Your task to perform on an android device: Search for seafood restaurants on Google Maps Image 0: 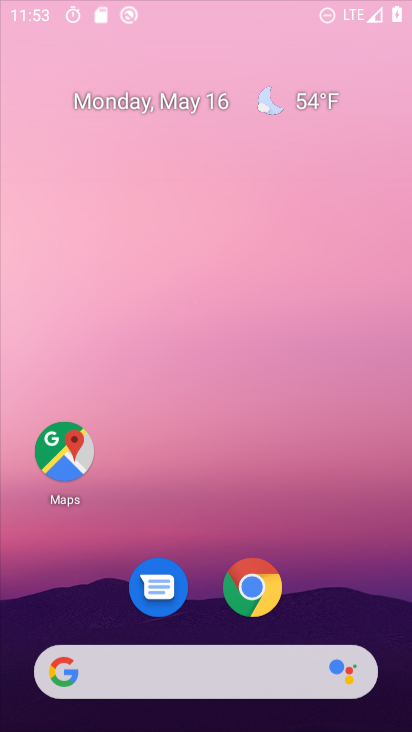
Step 0: click (306, 0)
Your task to perform on an android device: Search for seafood restaurants on Google Maps Image 1: 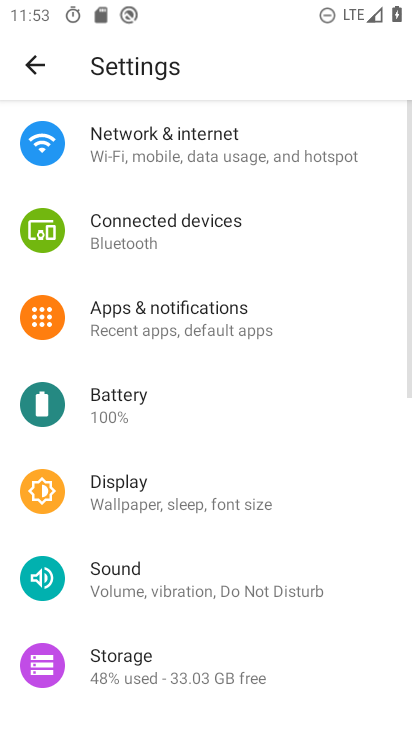
Step 1: press home button
Your task to perform on an android device: Search for seafood restaurants on Google Maps Image 2: 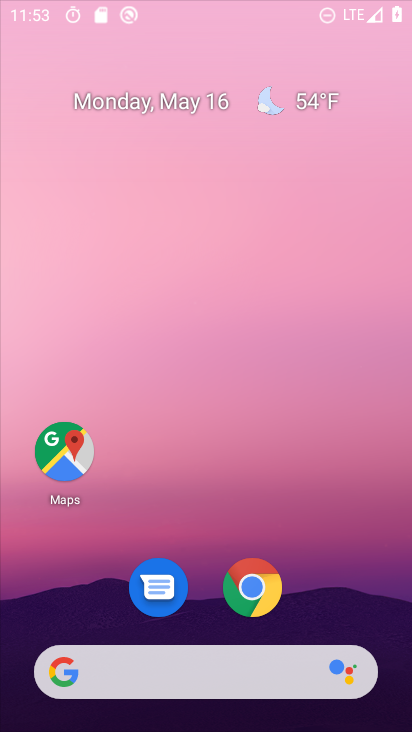
Step 2: drag from (205, 637) to (287, 183)
Your task to perform on an android device: Search for seafood restaurants on Google Maps Image 3: 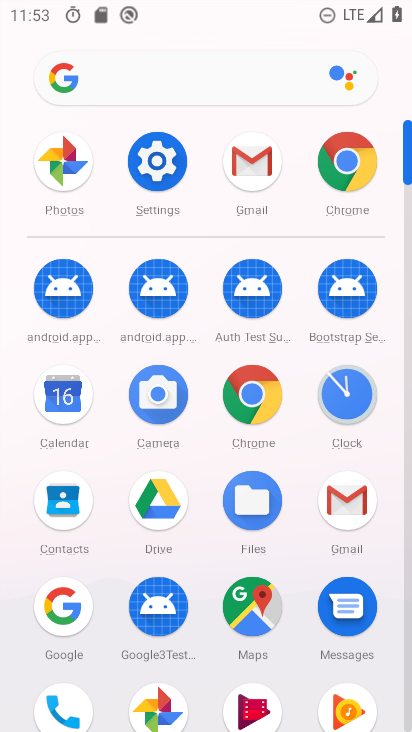
Step 3: click (242, 601)
Your task to perform on an android device: Search for seafood restaurants on Google Maps Image 4: 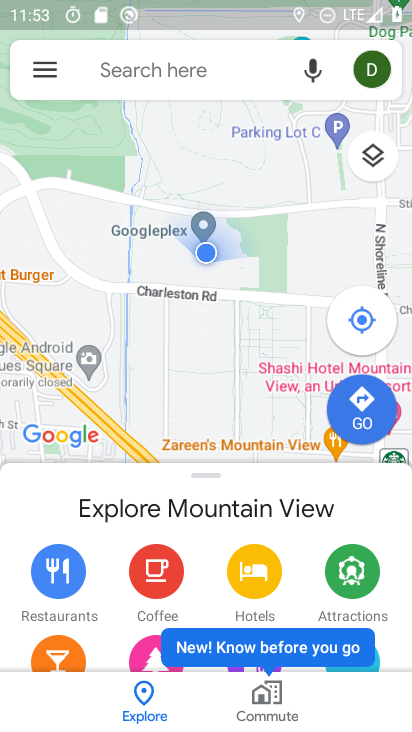
Step 4: drag from (219, 522) to (282, 112)
Your task to perform on an android device: Search for seafood restaurants on Google Maps Image 5: 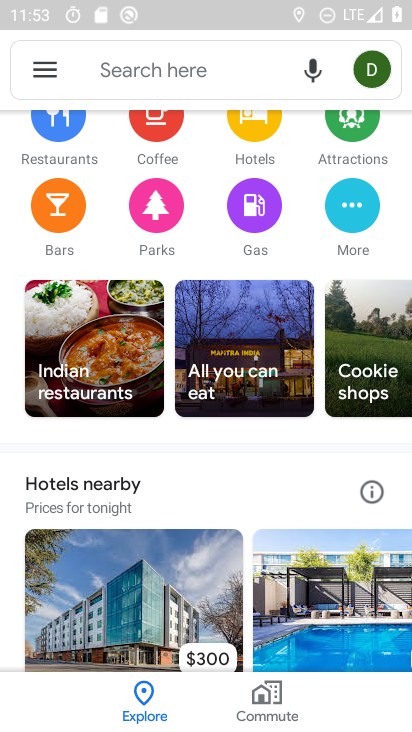
Step 5: click (150, 64)
Your task to perform on an android device: Search for seafood restaurants on Google Maps Image 6: 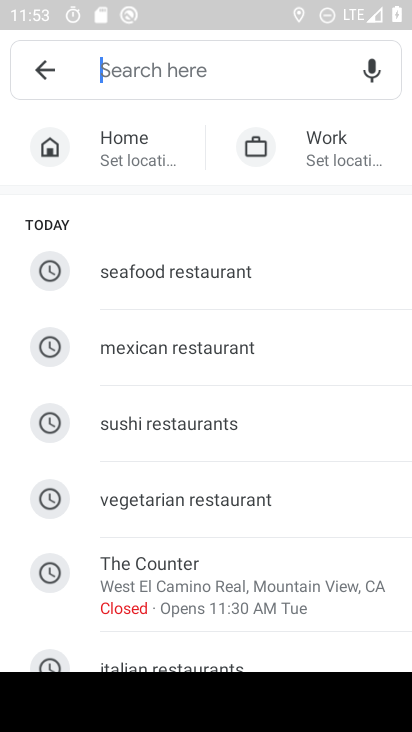
Step 6: click (187, 288)
Your task to perform on an android device: Search for seafood restaurants on Google Maps Image 7: 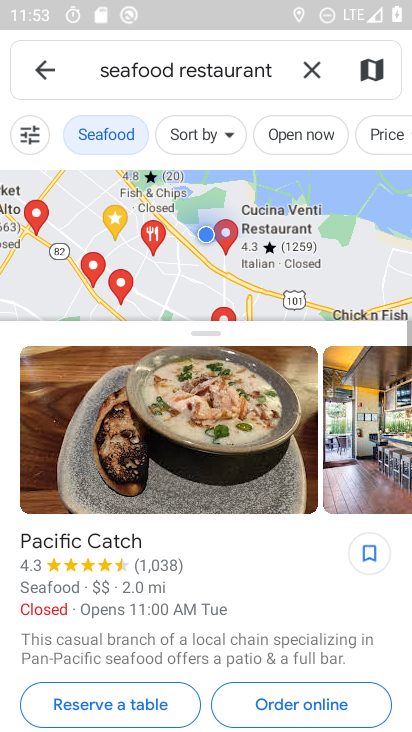
Step 7: task complete